Your task to perform on an android device: Show me the alarms in the clock app Image 0: 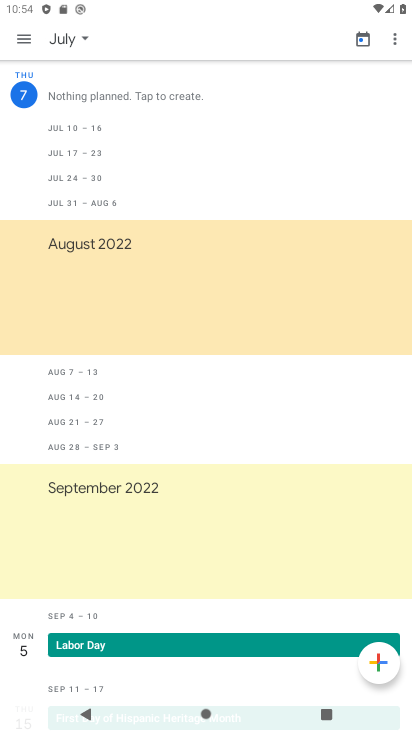
Step 0: press home button
Your task to perform on an android device: Show me the alarms in the clock app Image 1: 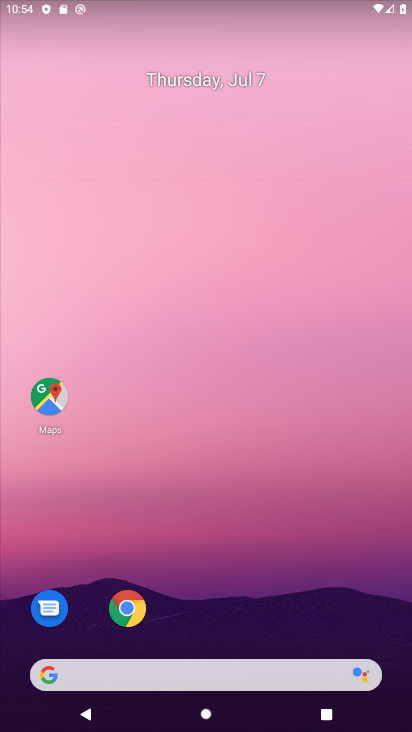
Step 1: drag from (213, 589) to (201, 315)
Your task to perform on an android device: Show me the alarms in the clock app Image 2: 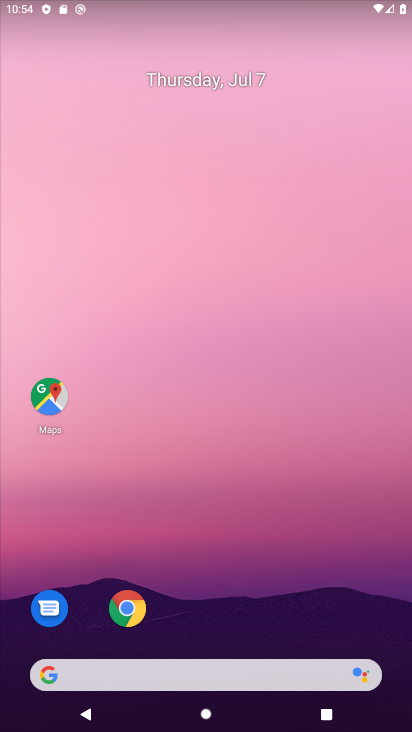
Step 2: drag from (247, 565) to (284, 44)
Your task to perform on an android device: Show me the alarms in the clock app Image 3: 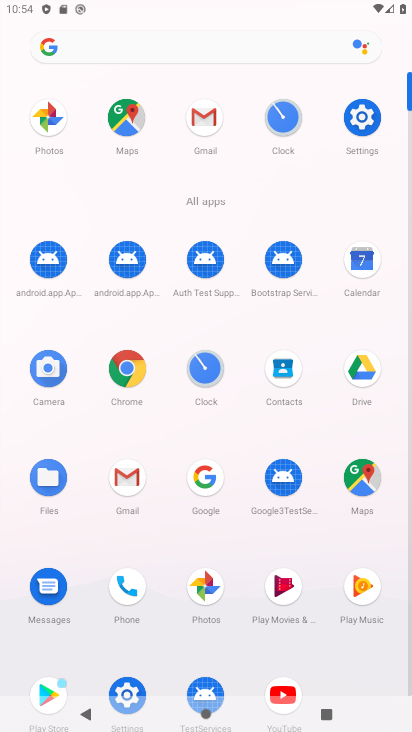
Step 3: click (209, 364)
Your task to perform on an android device: Show me the alarms in the clock app Image 4: 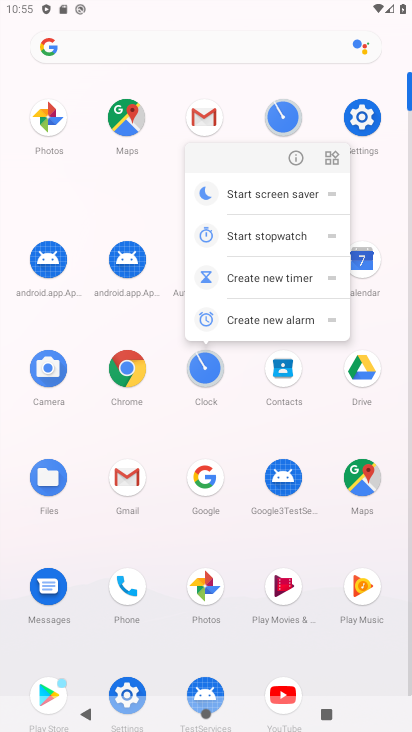
Step 4: click (212, 365)
Your task to perform on an android device: Show me the alarms in the clock app Image 5: 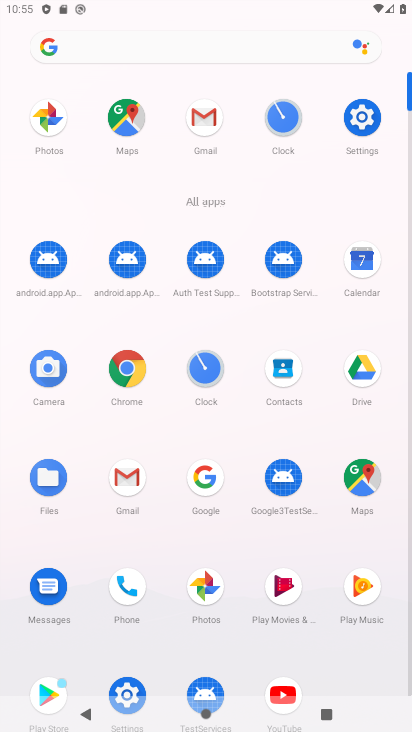
Step 5: click (213, 374)
Your task to perform on an android device: Show me the alarms in the clock app Image 6: 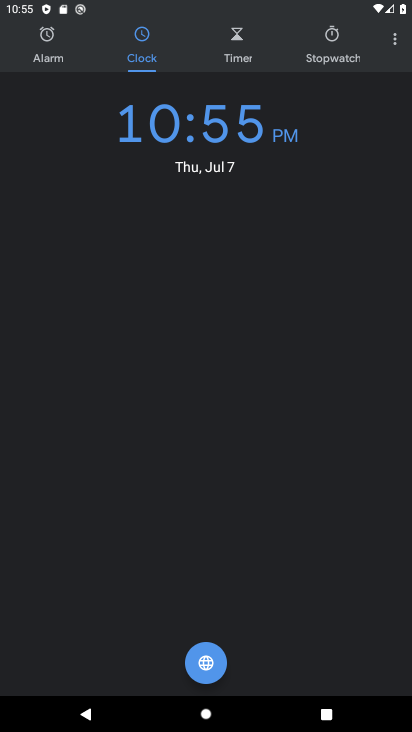
Step 6: click (68, 41)
Your task to perform on an android device: Show me the alarms in the clock app Image 7: 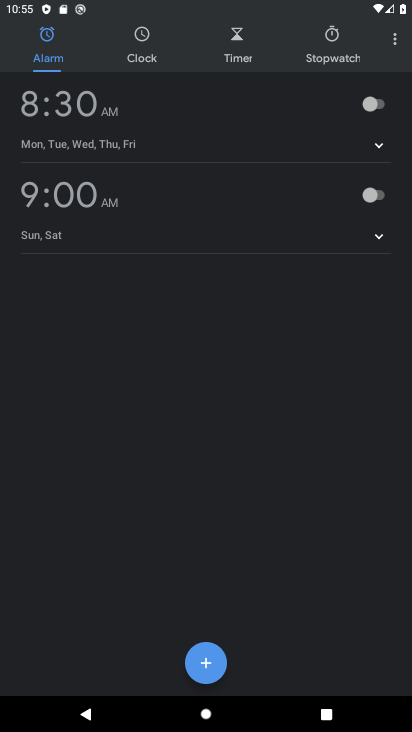
Step 7: task complete